Your task to perform on an android device: open app "Mercado Libre" (install if not already installed) Image 0: 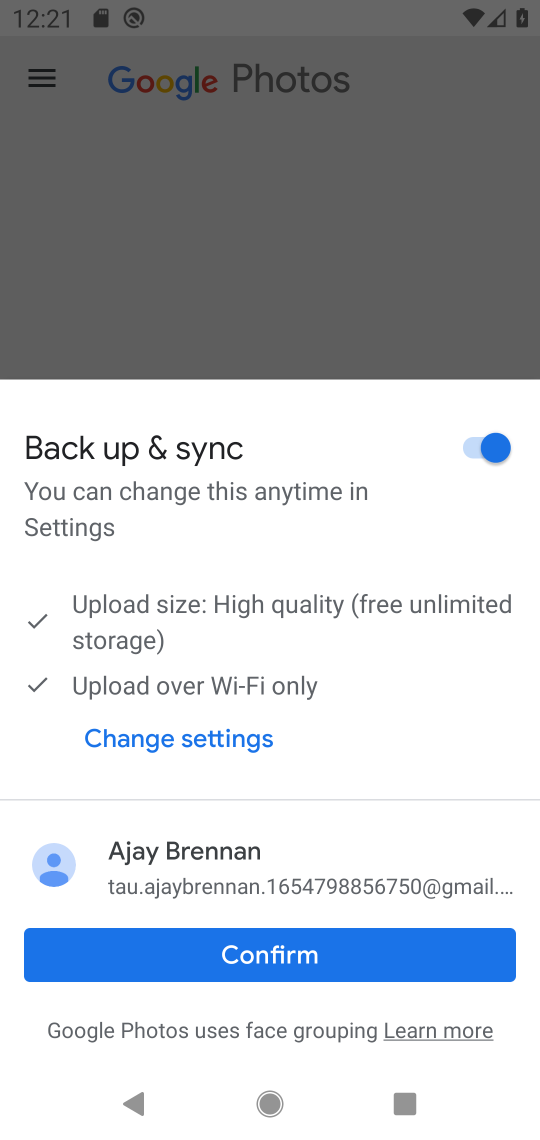
Step 0: press home button
Your task to perform on an android device: open app "Mercado Libre" (install if not already installed) Image 1: 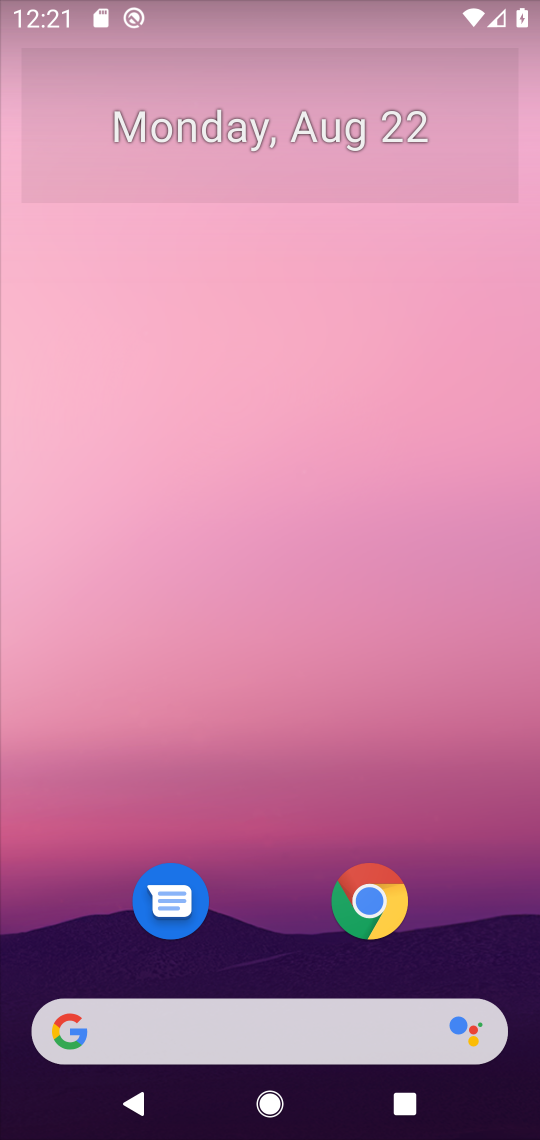
Step 1: drag from (269, 928) to (286, 130)
Your task to perform on an android device: open app "Mercado Libre" (install if not already installed) Image 2: 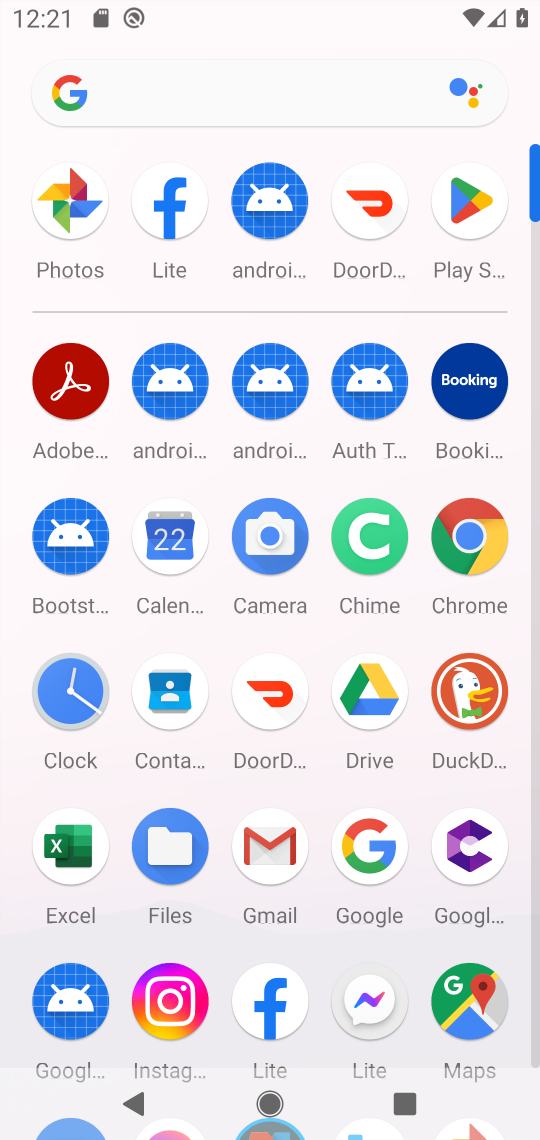
Step 2: click (467, 186)
Your task to perform on an android device: open app "Mercado Libre" (install if not already installed) Image 3: 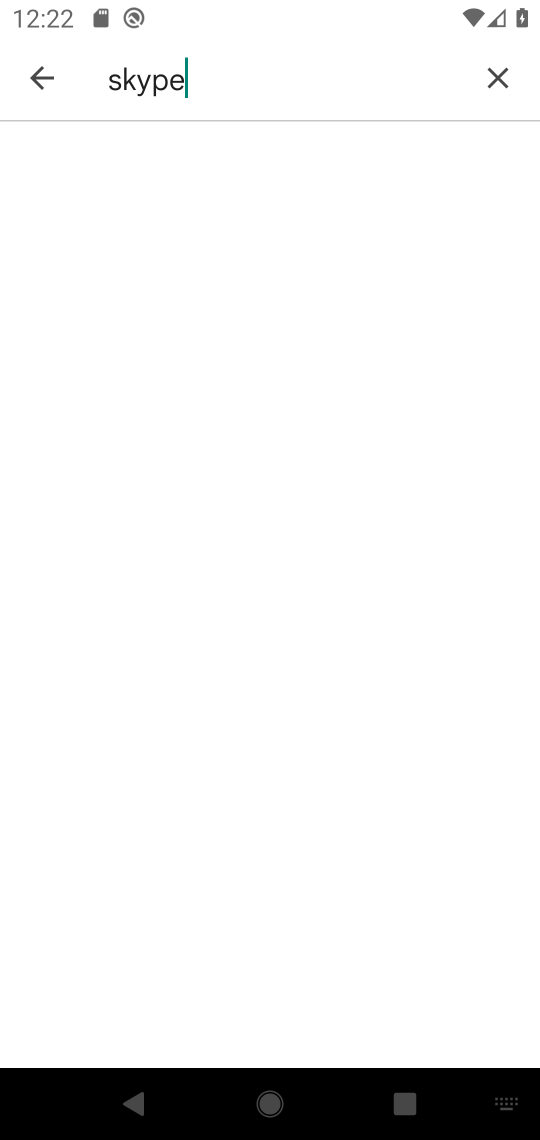
Step 3: click (470, 88)
Your task to perform on an android device: open app "Mercado Libre" (install if not already installed) Image 4: 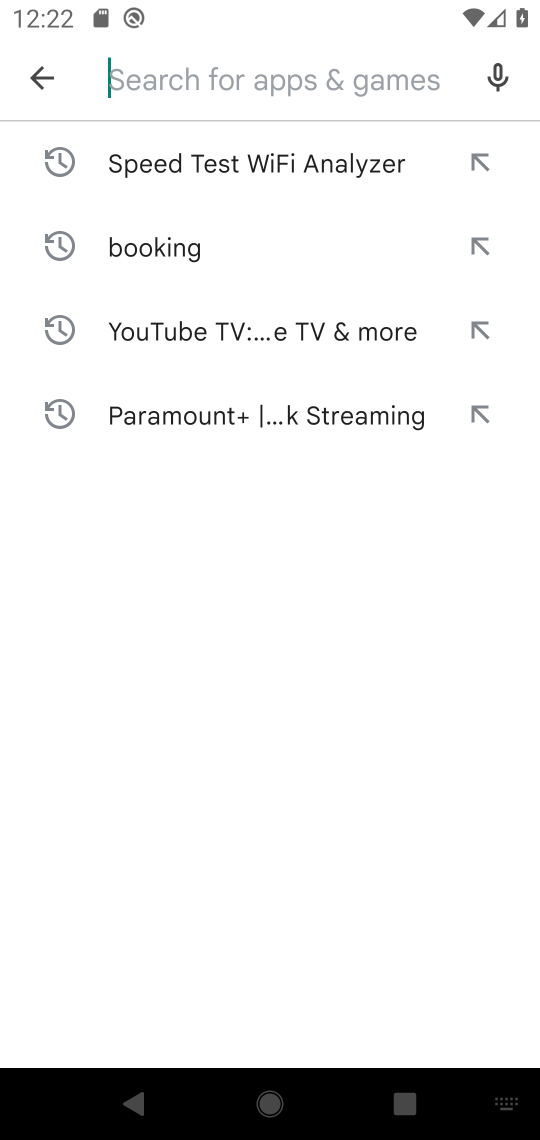
Step 4: type "mercado"
Your task to perform on an android device: open app "Mercado Libre" (install if not already installed) Image 5: 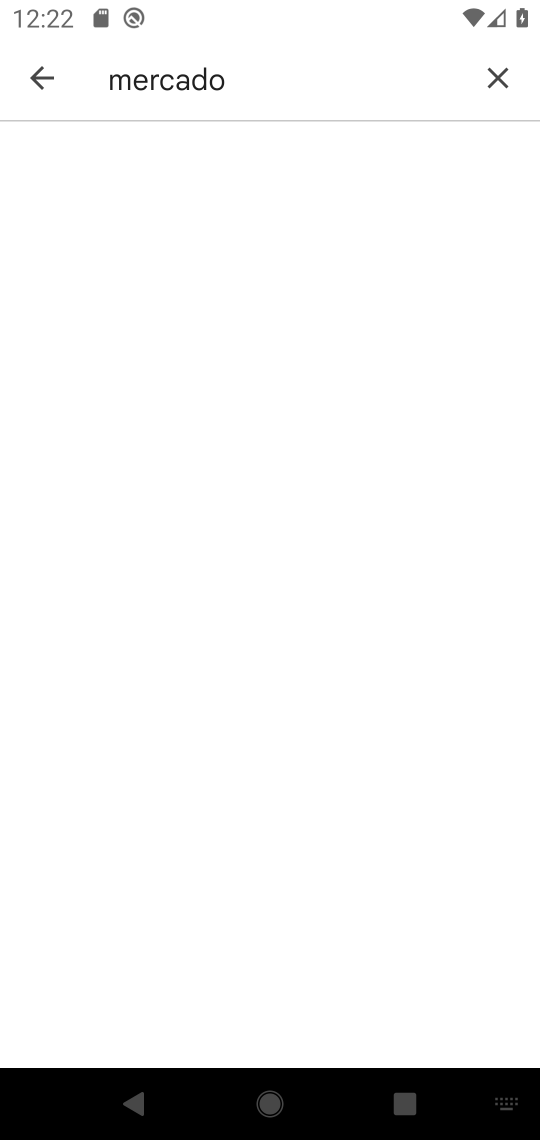
Step 5: task complete